Your task to perform on an android device: star an email in the gmail app Image 0: 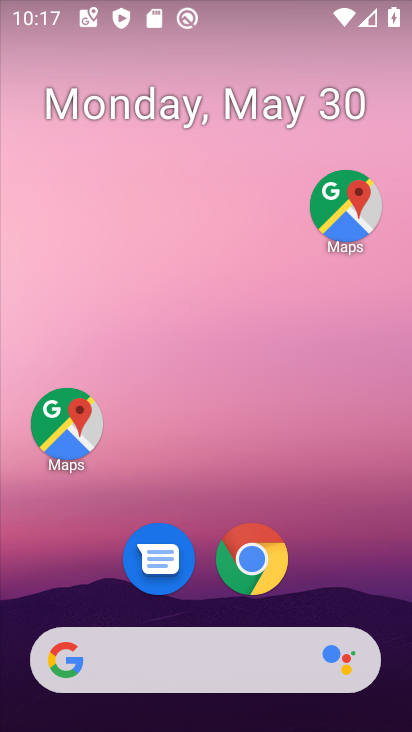
Step 0: drag from (334, 575) to (307, 97)
Your task to perform on an android device: star an email in the gmail app Image 1: 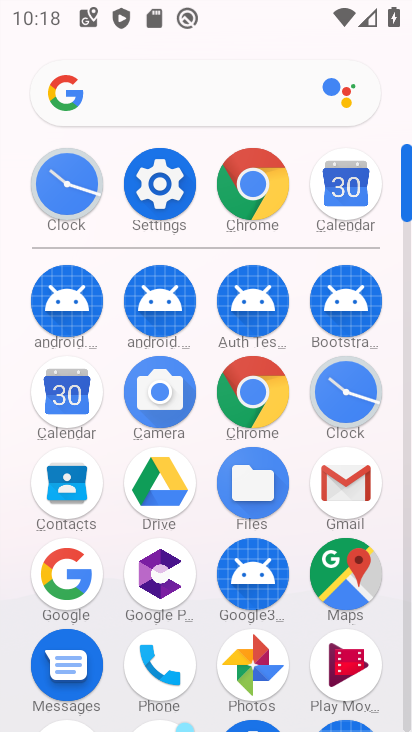
Step 1: click (349, 479)
Your task to perform on an android device: star an email in the gmail app Image 2: 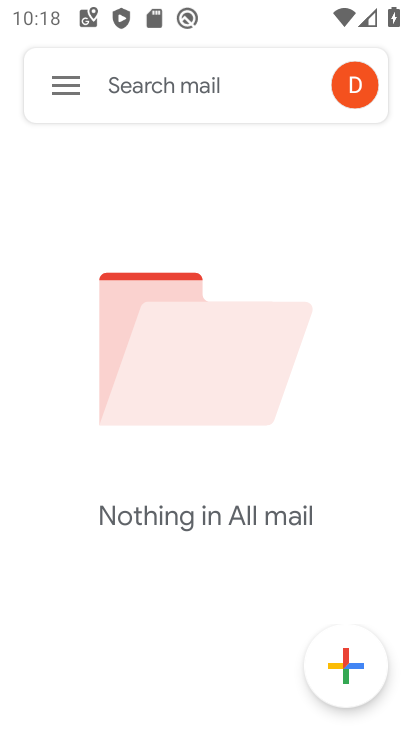
Step 2: task complete